Your task to perform on an android device: turn vacation reply on in the gmail app Image 0: 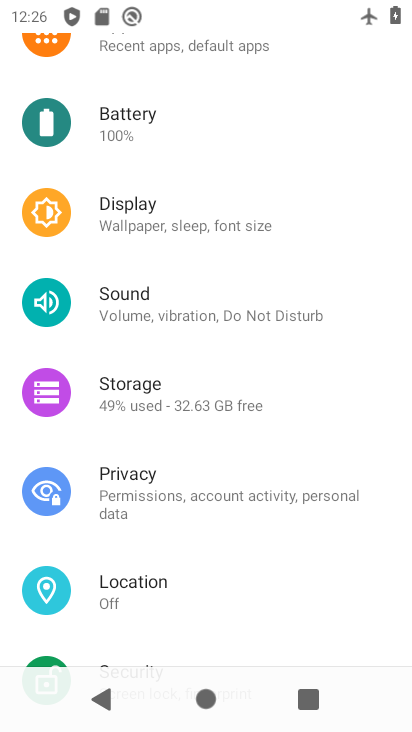
Step 0: press home button
Your task to perform on an android device: turn vacation reply on in the gmail app Image 1: 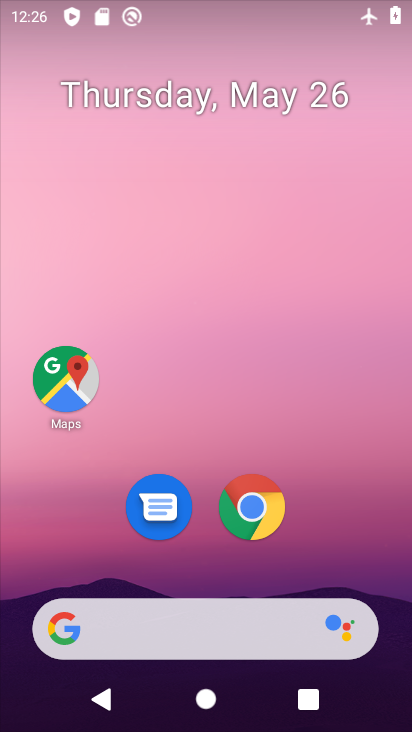
Step 1: drag from (192, 584) to (219, 194)
Your task to perform on an android device: turn vacation reply on in the gmail app Image 2: 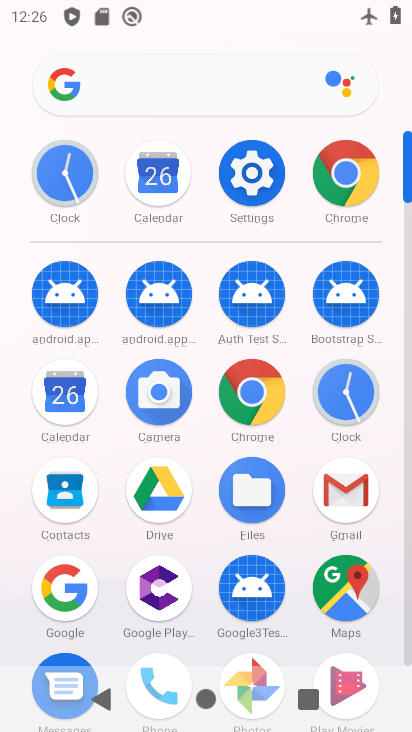
Step 2: click (323, 488)
Your task to perform on an android device: turn vacation reply on in the gmail app Image 3: 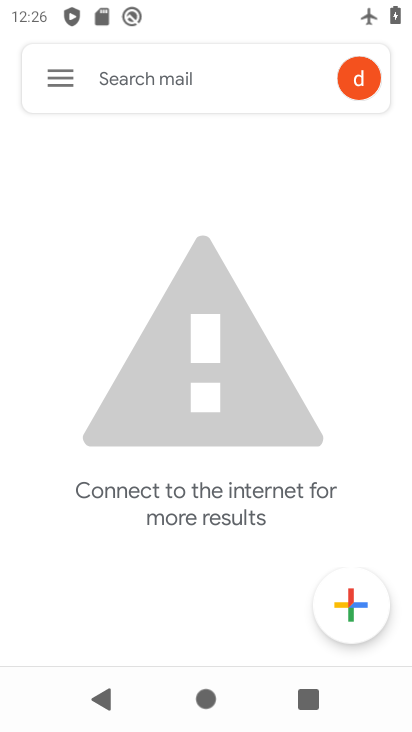
Step 3: click (57, 93)
Your task to perform on an android device: turn vacation reply on in the gmail app Image 4: 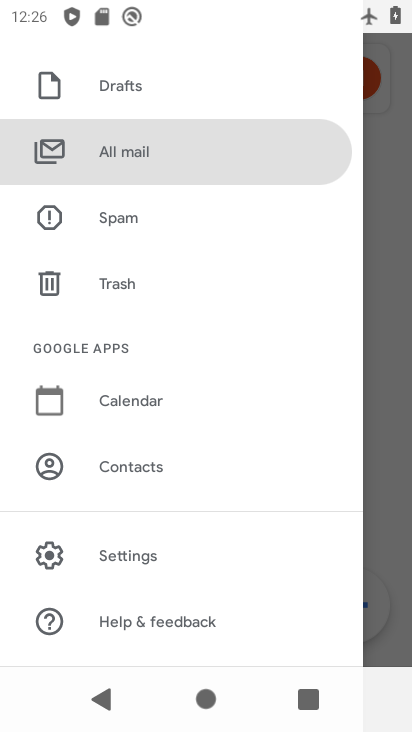
Step 4: click (153, 556)
Your task to perform on an android device: turn vacation reply on in the gmail app Image 5: 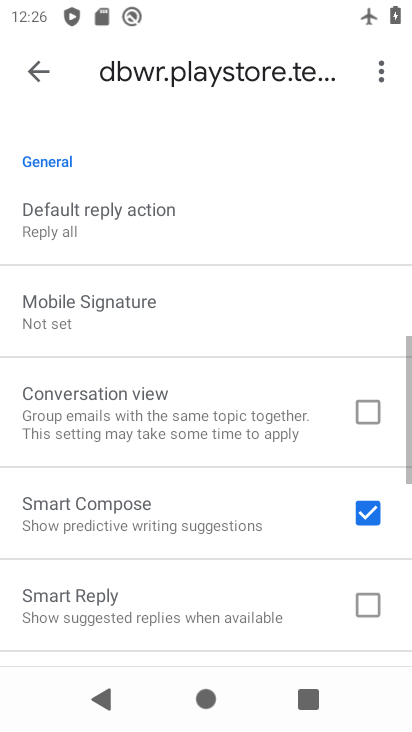
Step 5: drag from (154, 555) to (171, 343)
Your task to perform on an android device: turn vacation reply on in the gmail app Image 6: 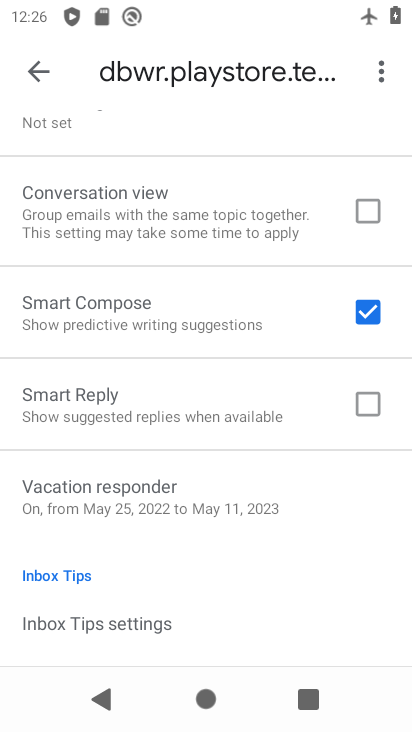
Step 6: click (155, 491)
Your task to perform on an android device: turn vacation reply on in the gmail app Image 7: 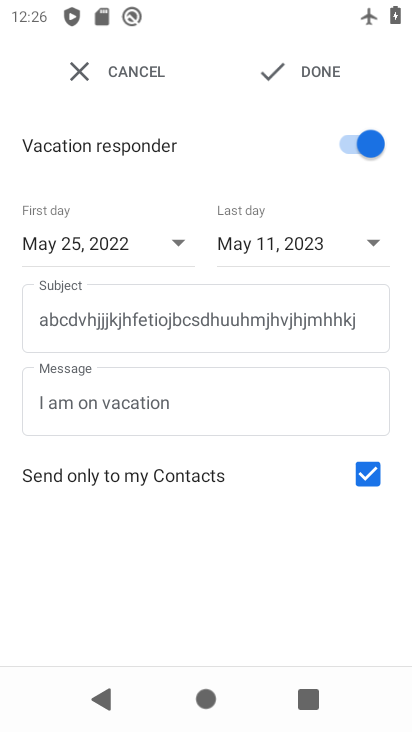
Step 7: task complete